Your task to perform on an android device: see tabs open on other devices in the chrome app Image 0: 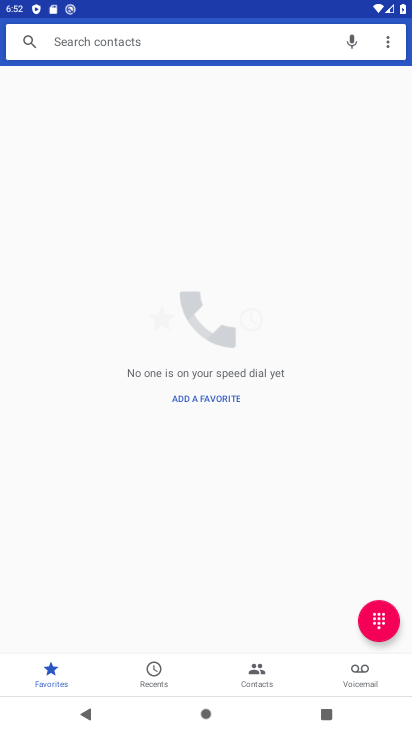
Step 0: press home button
Your task to perform on an android device: see tabs open on other devices in the chrome app Image 1: 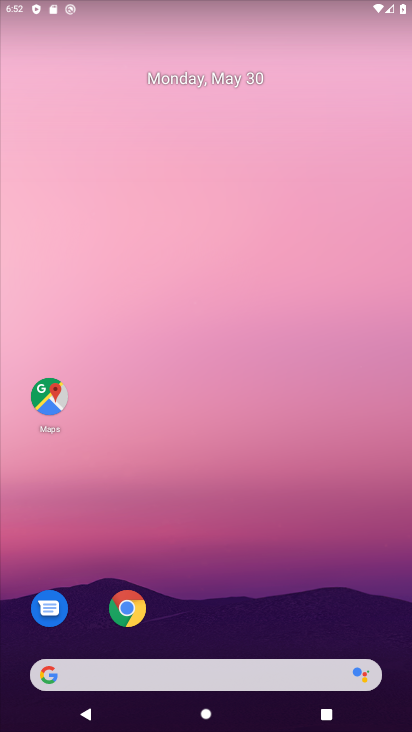
Step 1: drag from (151, 550) to (227, 167)
Your task to perform on an android device: see tabs open on other devices in the chrome app Image 2: 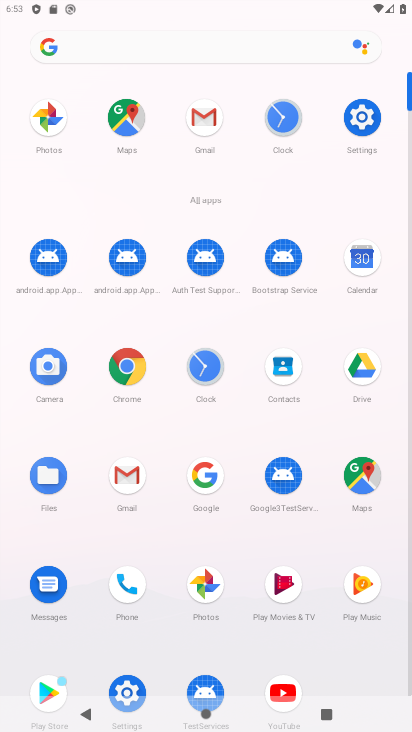
Step 2: click (116, 365)
Your task to perform on an android device: see tabs open on other devices in the chrome app Image 3: 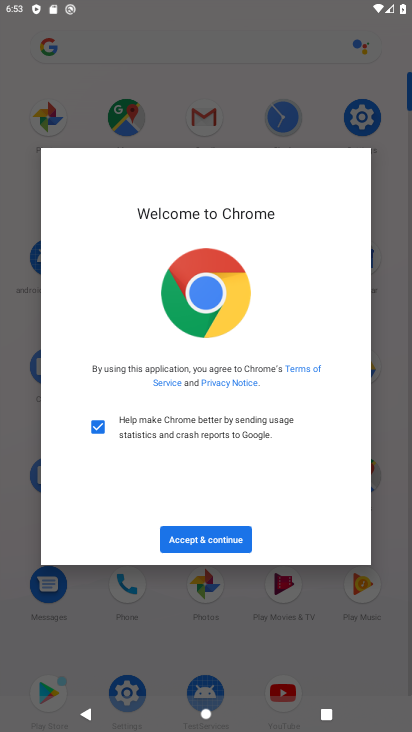
Step 3: click (229, 553)
Your task to perform on an android device: see tabs open on other devices in the chrome app Image 4: 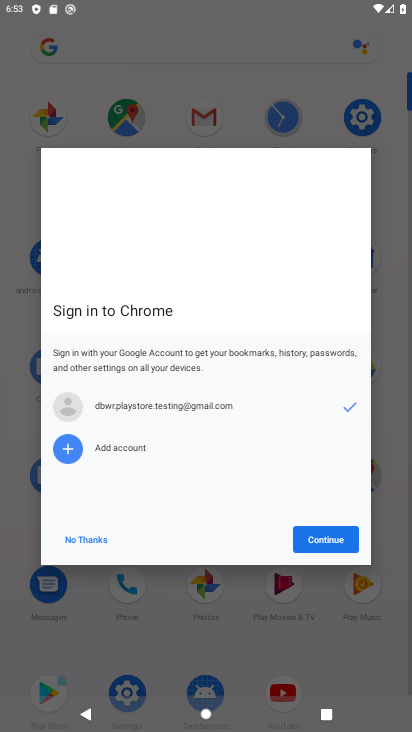
Step 4: click (315, 541)
Your task to perform on an android device: see tabs open on other devices in the chrome app Image 5: 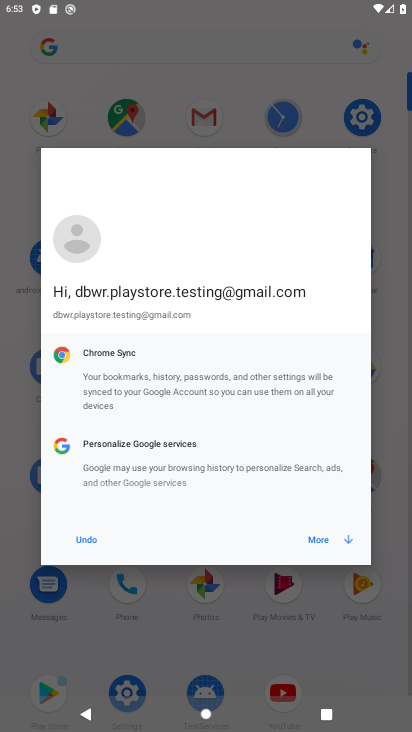
Step 5: click (323, 537)
Your task to perform on an android device: see tabs open on other devices in the chrome app Image 6: 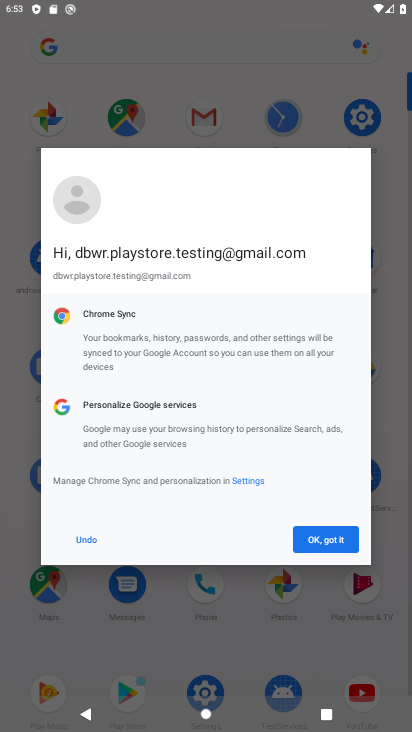
Step 6: click (323, 537)
Your task to perform on an android device: see tabs open on other devices in the chrome app Image 7: 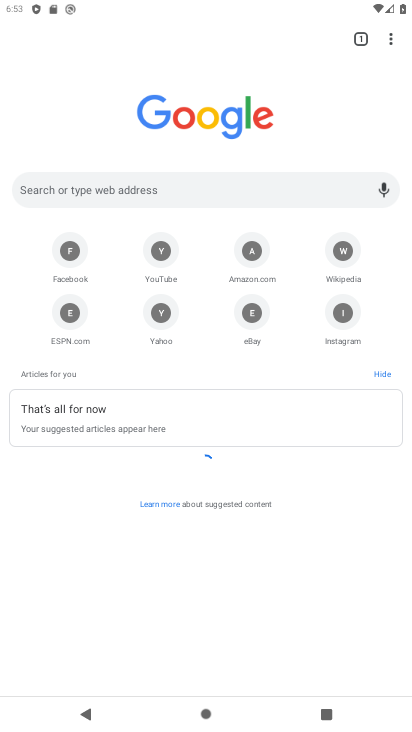
Step 7: click (365, 38)
Your task to perform on an android device: see tabs open on other devices in the chrome app Image 8: 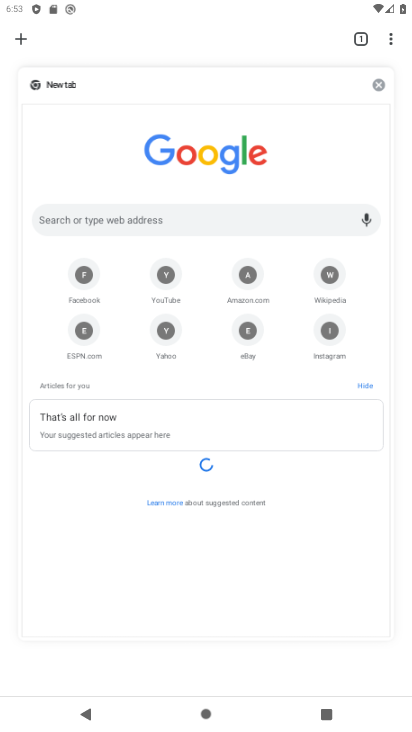
Step 8: task complete